Your task to perform on an android device: open the mobile data screen to see how much data has been used Image 0: 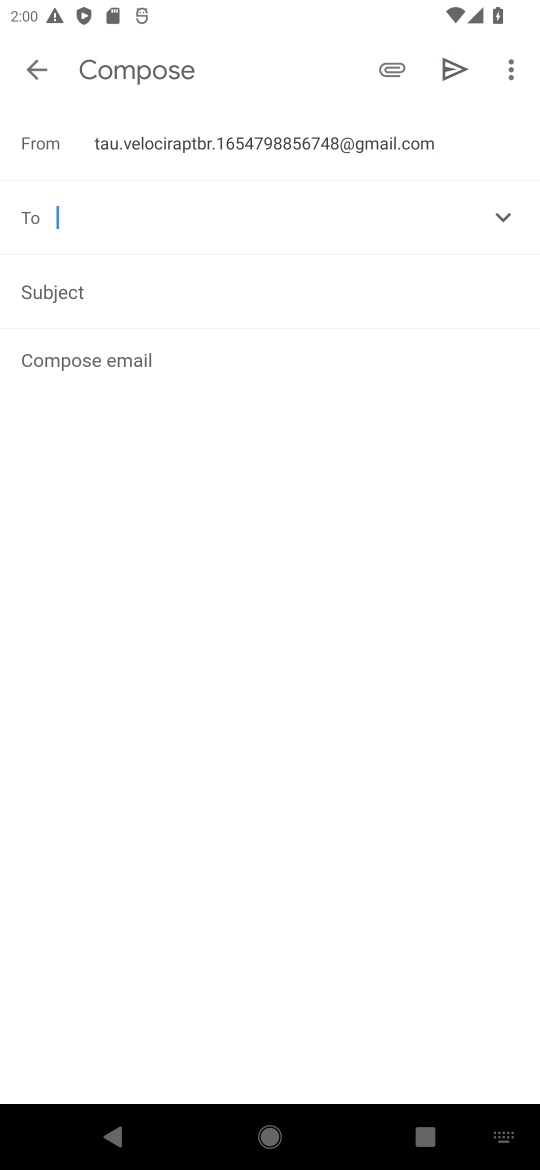
Step 0: press home button
Your task to perform on an android device: open the mobile data screen to see how much data has been used Image 1: 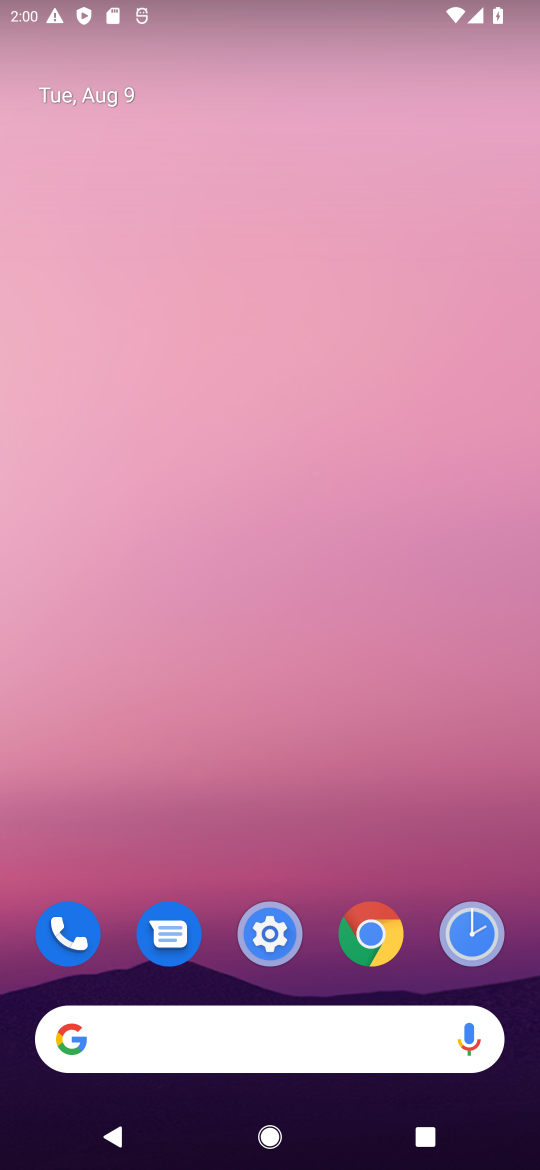
Step 1: click (247, 960)
Your task to perform on an android device: open the mobile data screen to see how much data has been used Image 2: 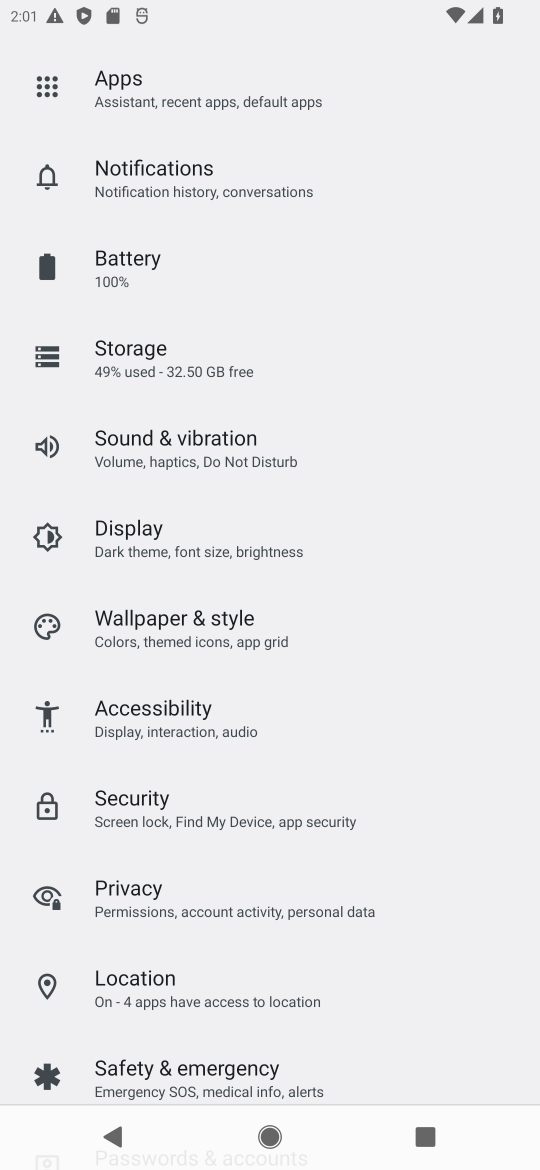
Step 2: drag from (286, 317) to (351, 1098)
Your task to perform on an android device: open the mobile data screen to see how much data has been used Image 3: 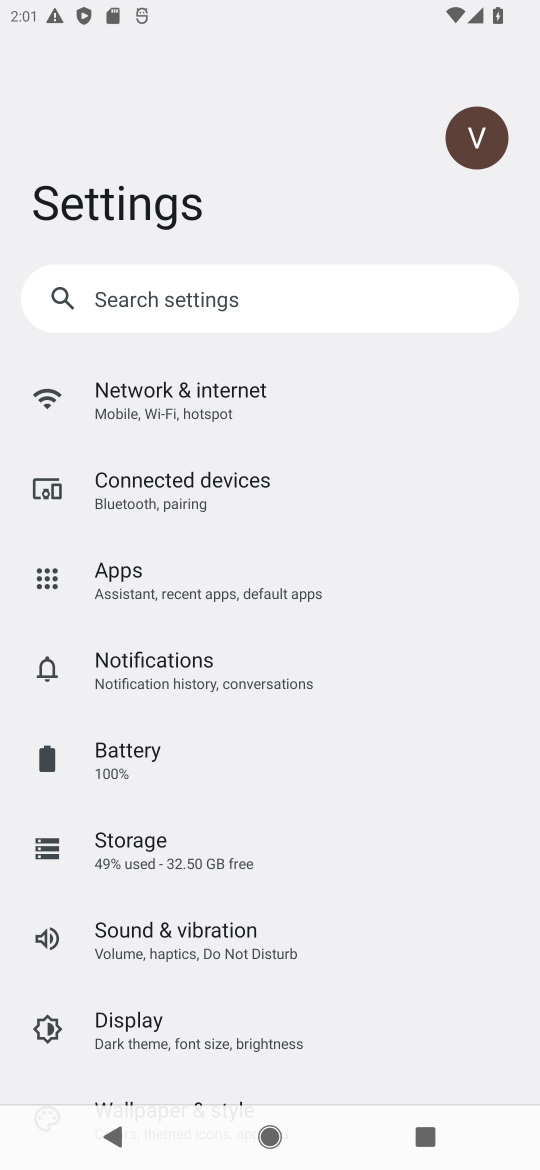
Step 3: click (266, 426)
Your task to perform on an android device: open the mobile data screen to see how much data has been used Image 4: 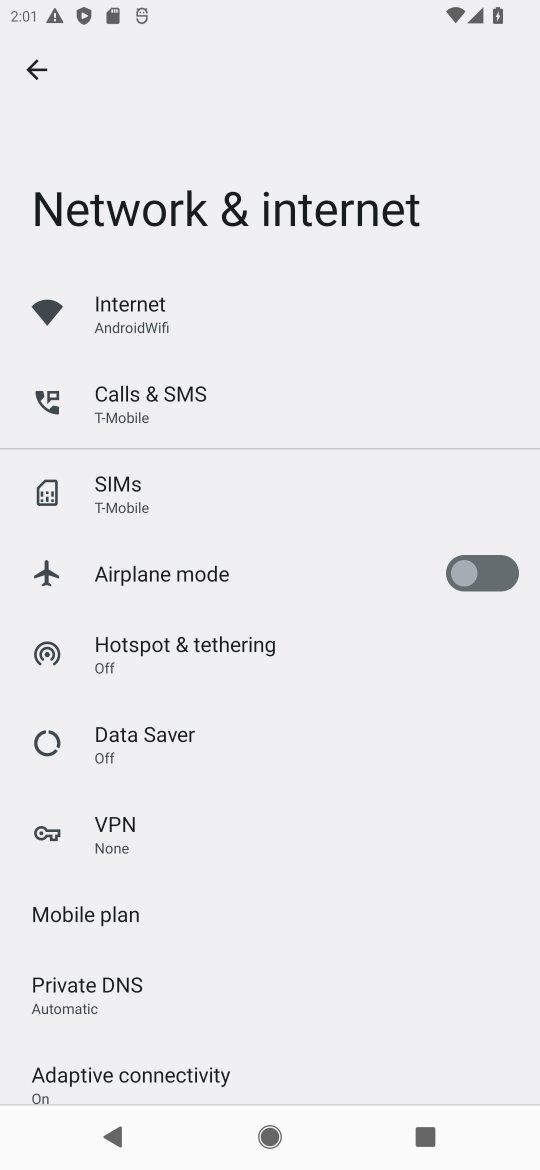
Step 4: click (135, 320)
Your task to perform on an android device: open the mobile data screen to see how much data has been used Image 5: 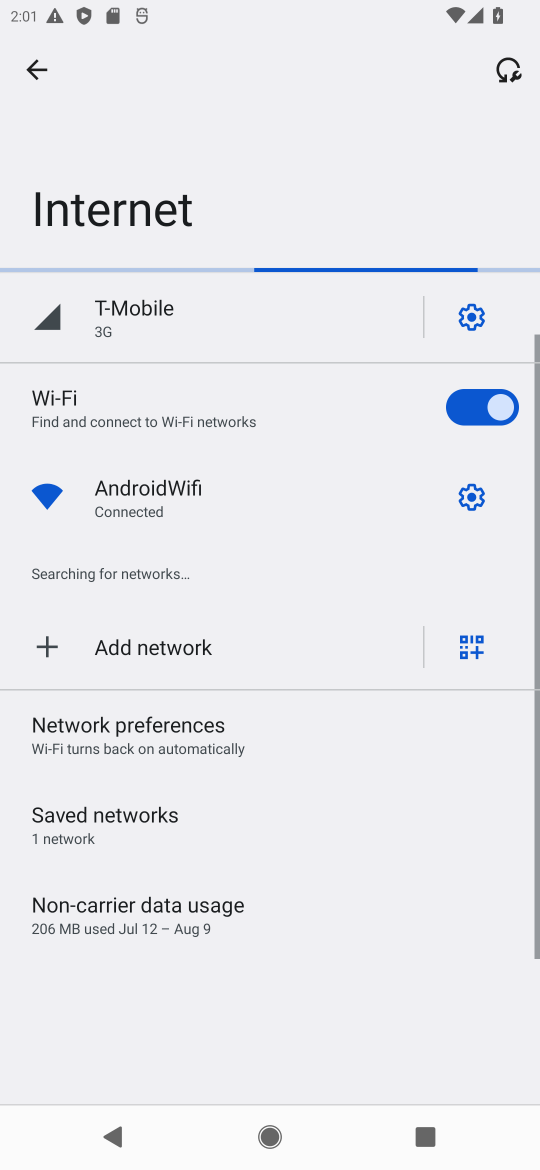
Step 5: click (197, 368)
Your task to perform on an android device: open the mobile data screen to see how much data has been used Image 6: 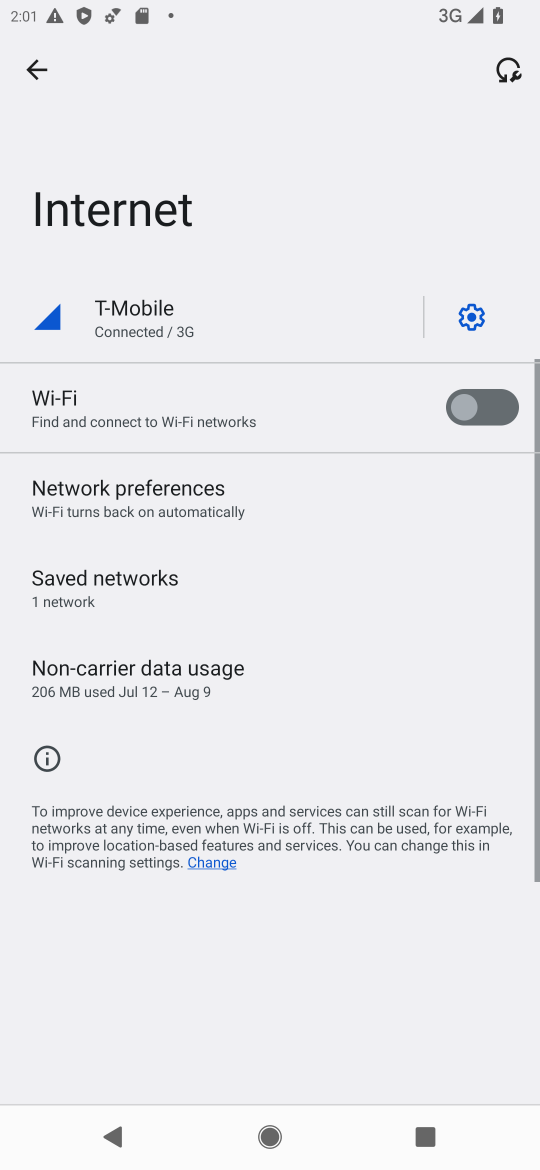
Step 6: task complete